Your task to perform on an android device: change text size in settings app Image 0: 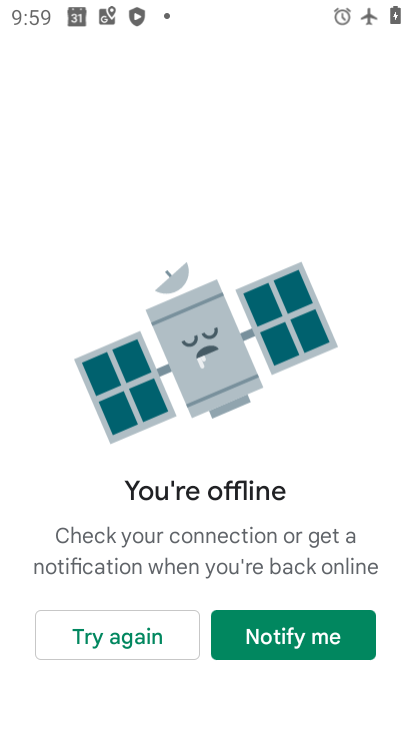
Step 0: press home button
Your task to perform on an android device: change text size in settings app Image 1: 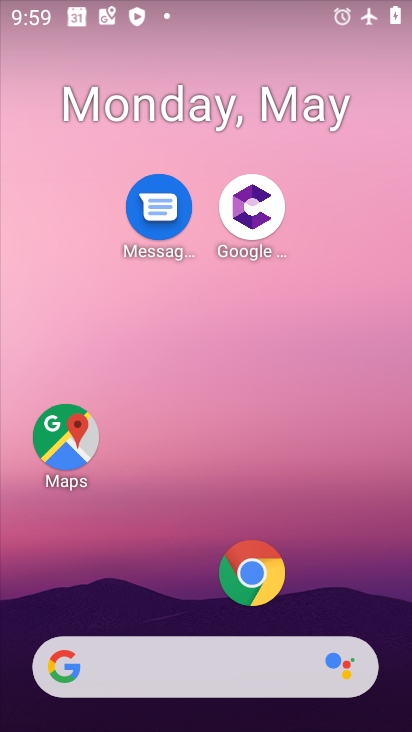
Step 1: drag from (200, 577) to (275, 158)
Your task to perform on an android device: change text size in settings app Image 2: 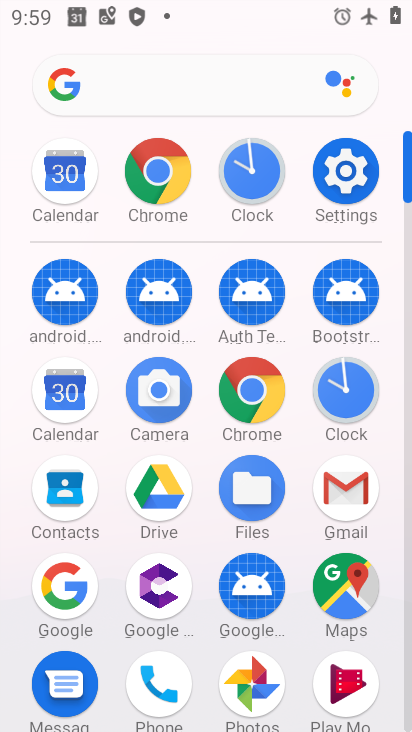
Step 2: click (354, 184)
Your task to perform on an android device: change text size in settings app Image 3: 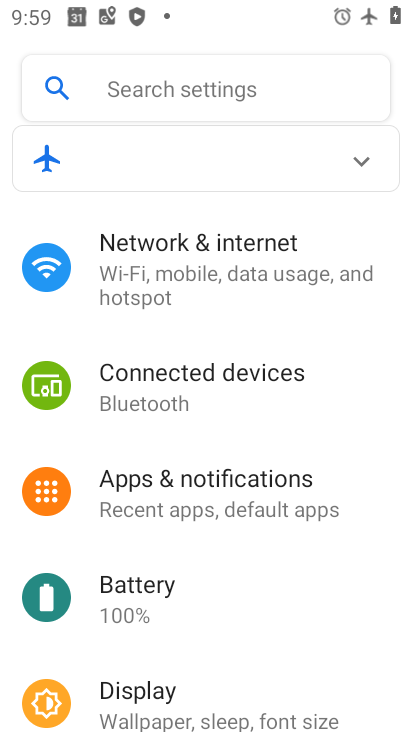
Step 3: drag from (247, 613) to (298, 233)
Your task to perform on an android device: change text size in settings app Image 4: 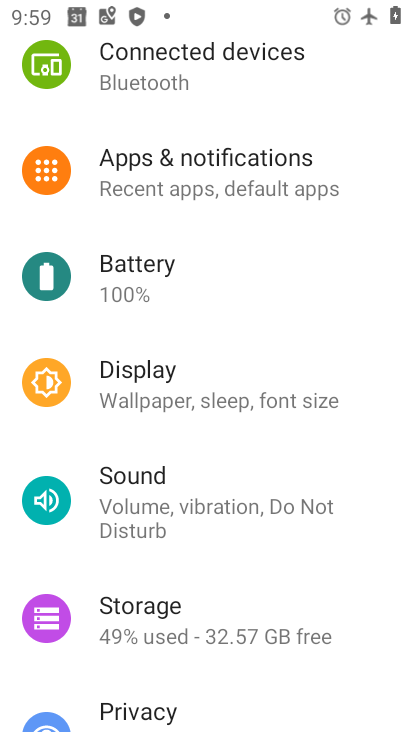
Step 4: click (205, 384)
Your task to perform on an android device: change text size in settings app Image 5: 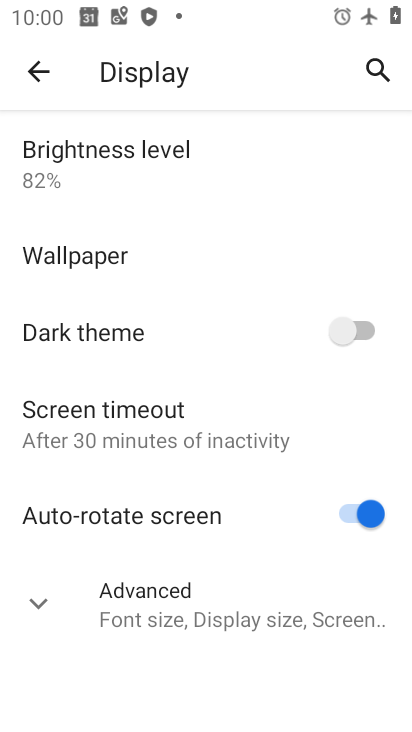
Step 5: click (117, 605)
Your task to perform on an android device: change text size in settings app Image 6: 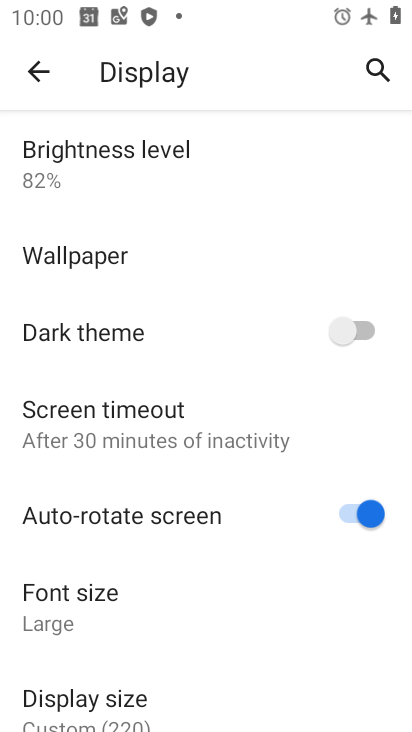
Step 6: click (114, 607)
Your task to perform on an android device: change text size in settings app Image 7: 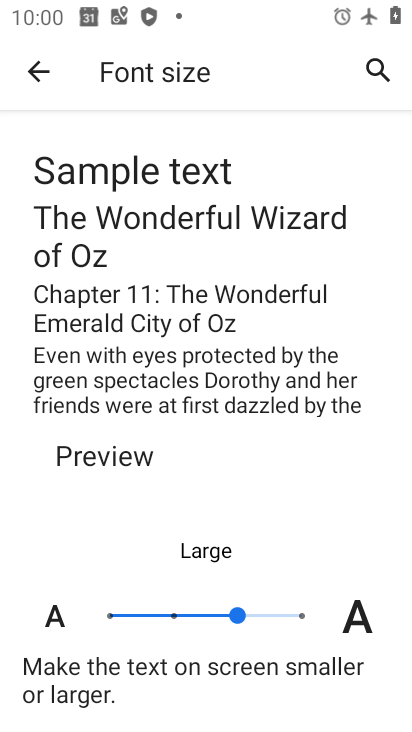
Step 7: click (171, 612)
Your task to perform on an android device: change text size in settings app Image 8: 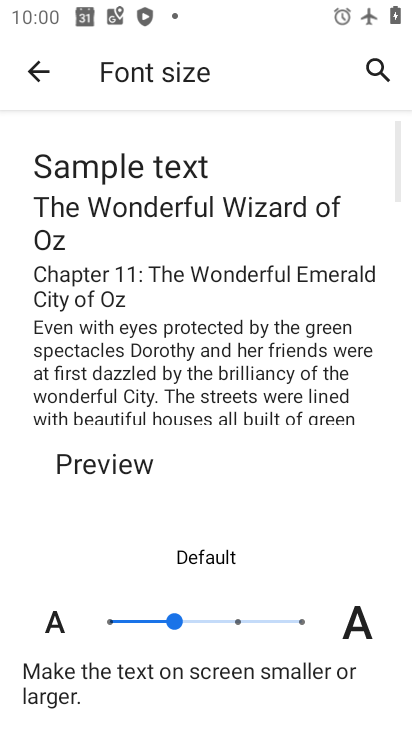
Step 8: task complete